Your task to perform on an android device: Open accessibility settings Image 0: 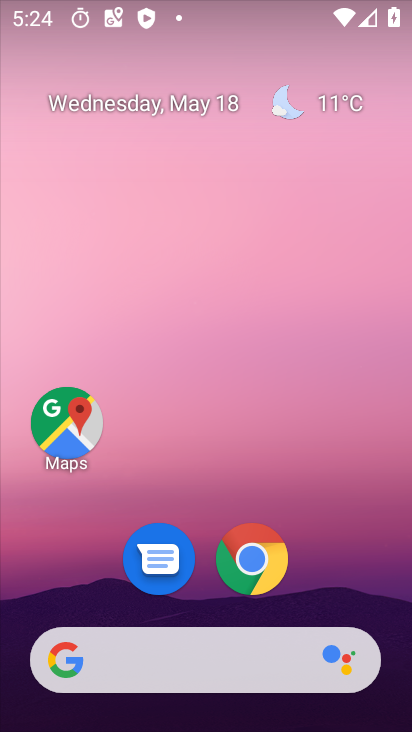
Step 0: drag from (198, 519) to (246, 177)
Your task to perform on an android device: Open accessibility settings Image 1: 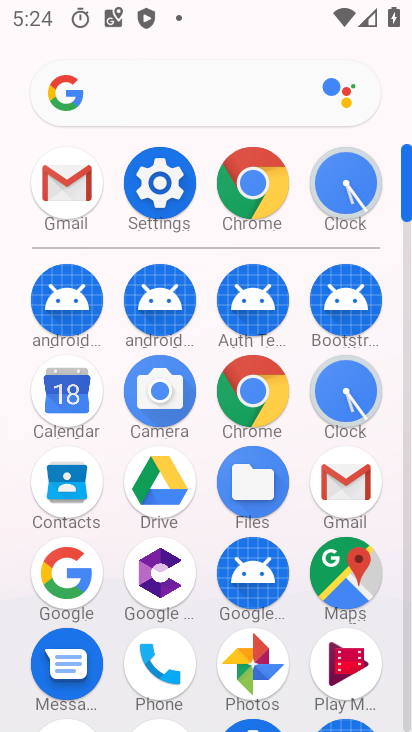
Step 1: click (159, 190)
Your task to perform on an android device: Open accessibility settings Image 2: 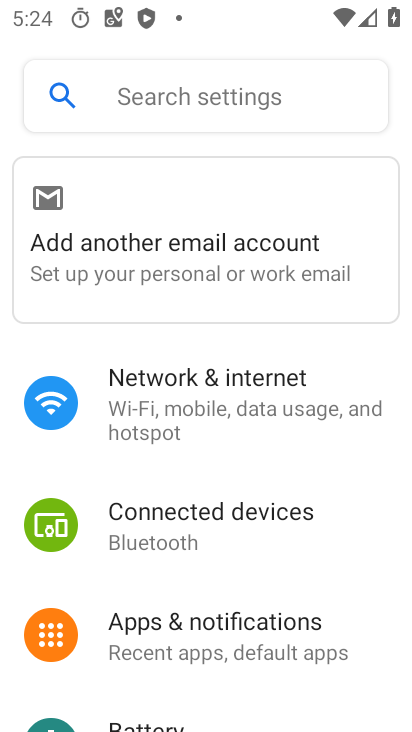
Step 2: drag from (114, 611) to (189, 156)
Your task to perform on an android device: Open accessibility settings Image 3: 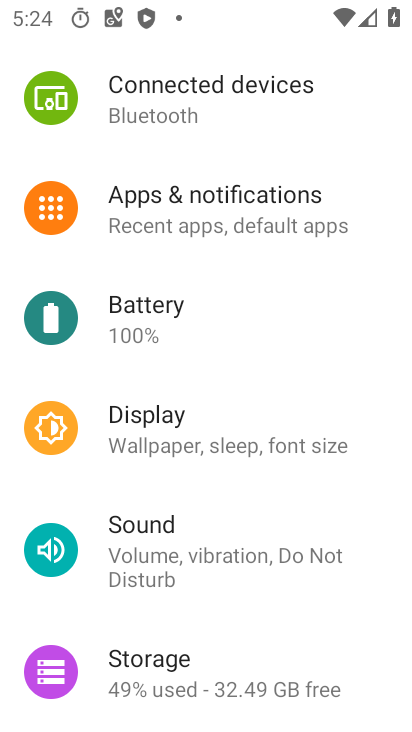
Step 3: drag from (166, 660) to (243, 213)
Your task to perform on an android device: Open accessibility settings Image 4: 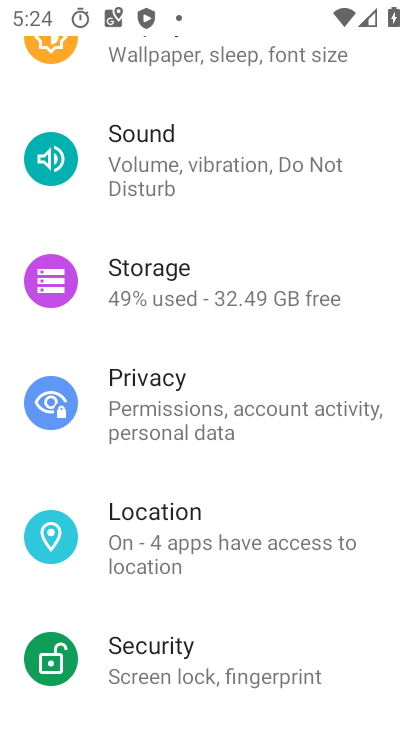
Step 4: drag from (162, 673) to (252, 45)
Your task to perform on an android device: Open accessibility settings Image 5: 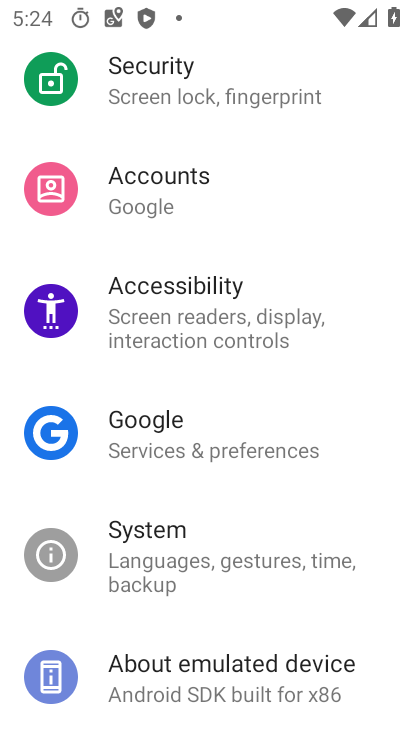
Step 5: click (152, 314)
Your task to perform on an android device: Open accessibility settings Image 6: 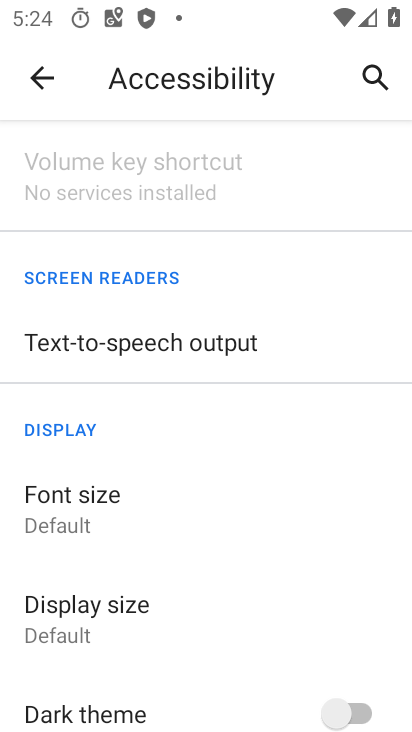
Step 6: task complete